Your task to perform on an android device: Clear the shopping cart on amazon. Add logitech g502 to the cart on amazon, then select checkout. Image 0: 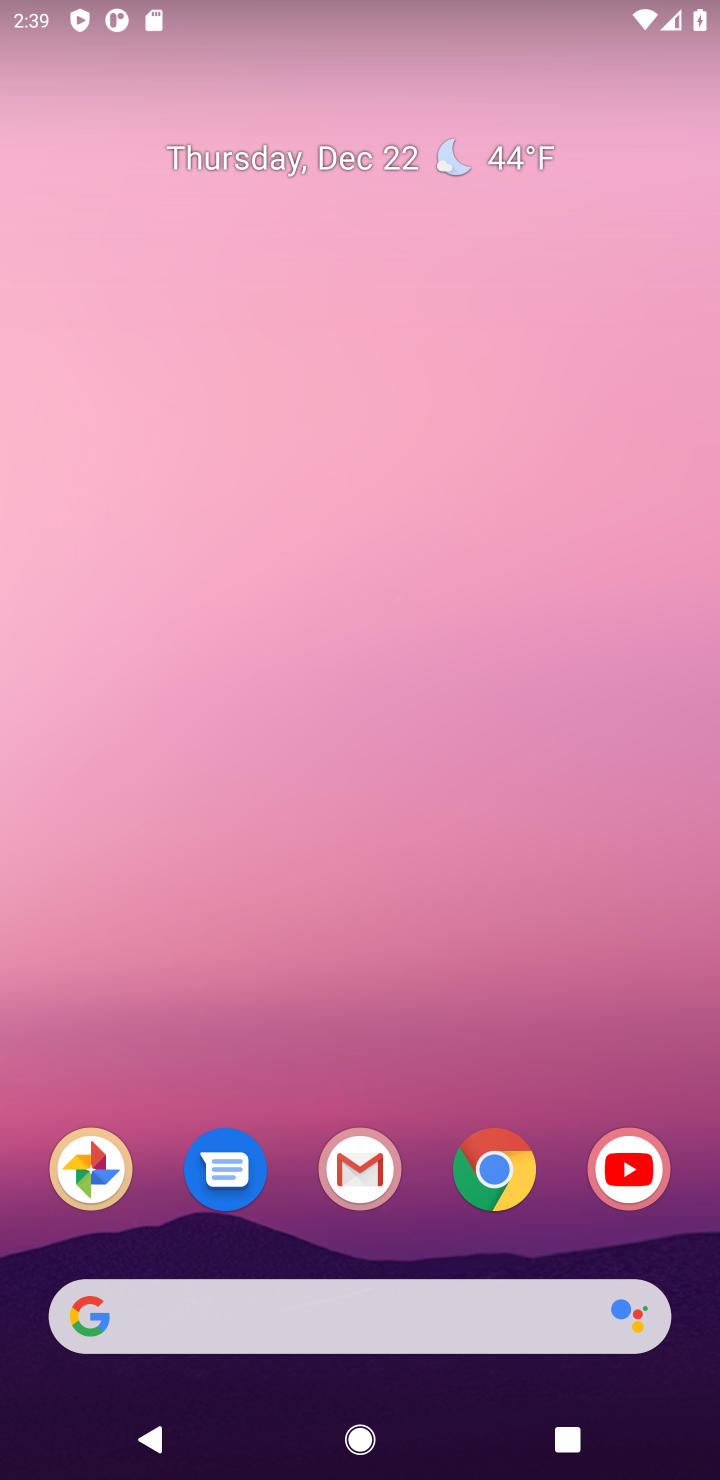
Step 0: click (502, 1166)
Your task to perform on an android device: Clear the shopping cart on amazon. Add logitech g502 to the cart on amazon, then select checkout. Image 1: 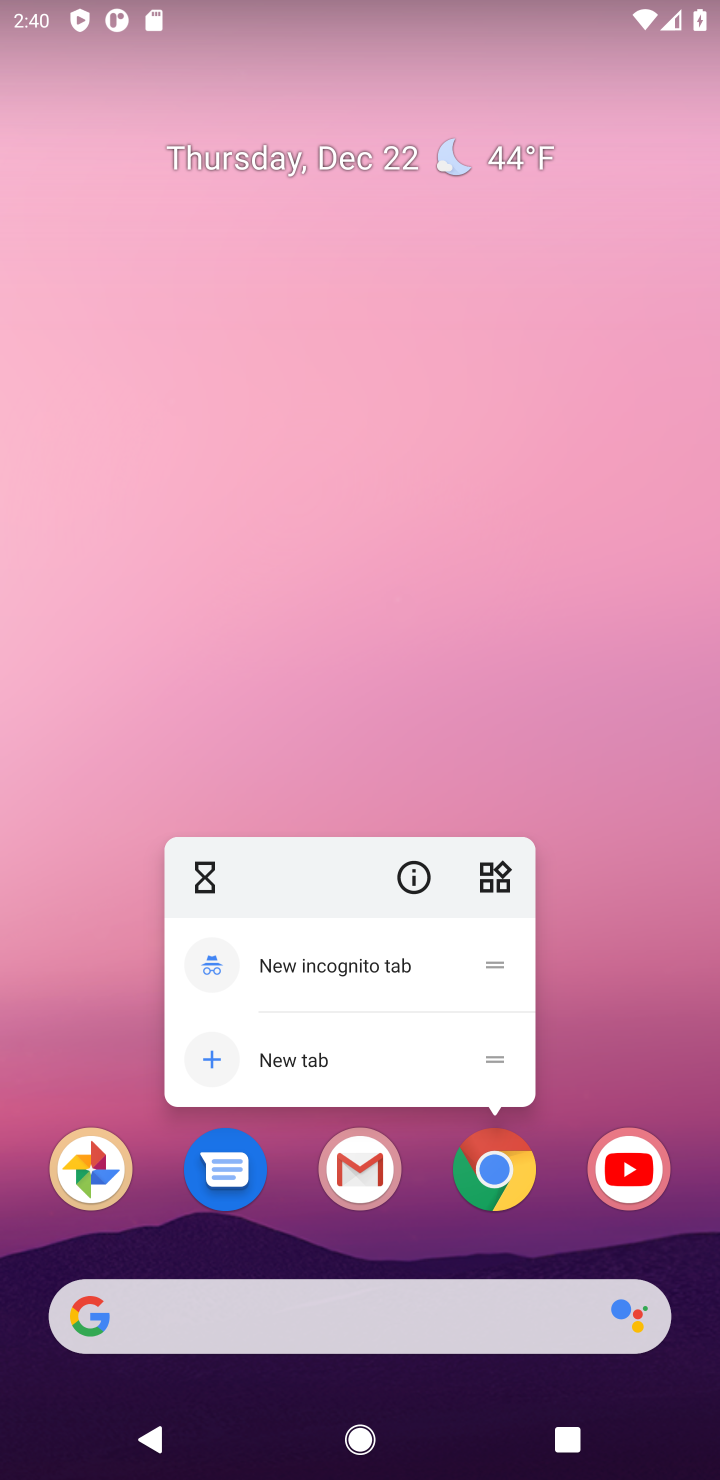
Step 1: click (502, 1166)
Your task to perform on an android device: Clear the shopping cart on amazon. Add logitech g502 to the cart on amazon, then select checkout. Image 2: 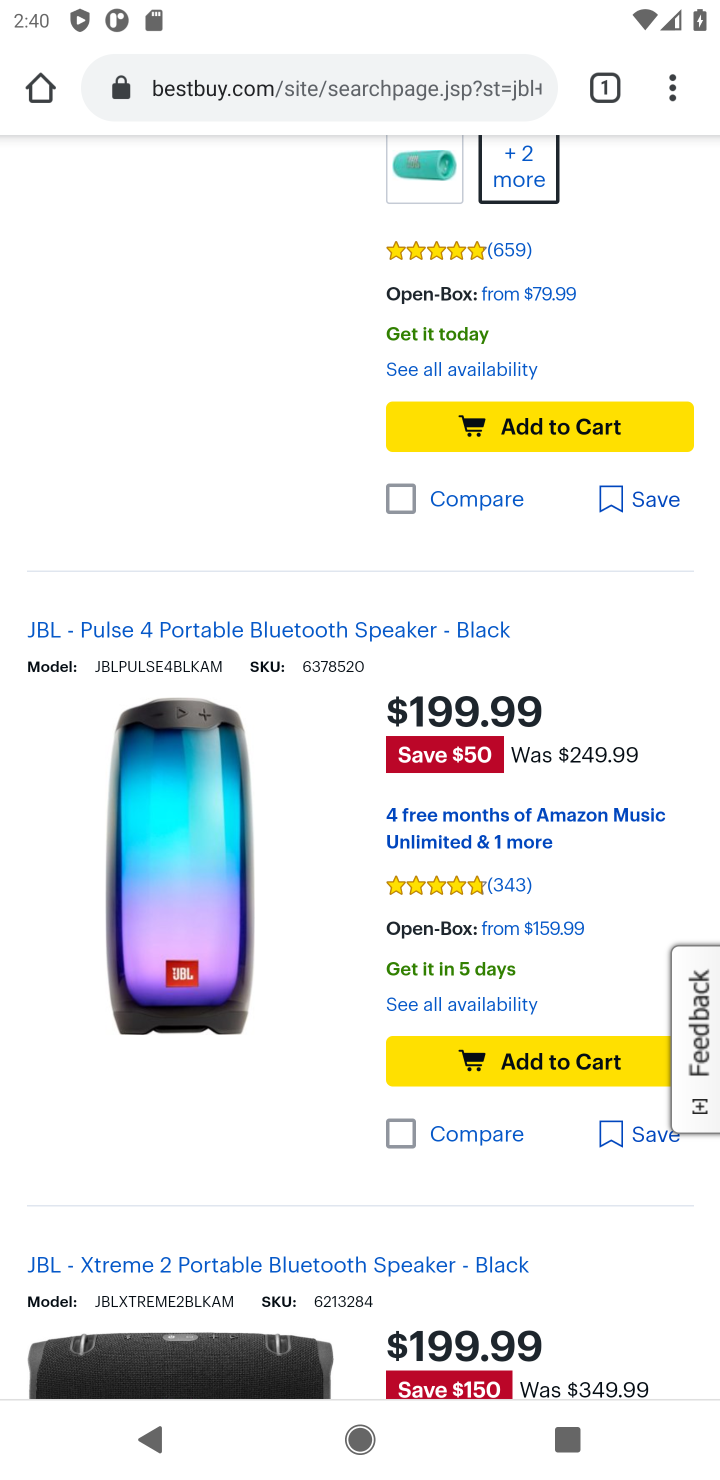
Step 2: click (278, 98)
Your task to perform on an android device: Clear the shopping cart on amazon. Add logitech g502 to the cart on amazon, then select checkout. Image 3: 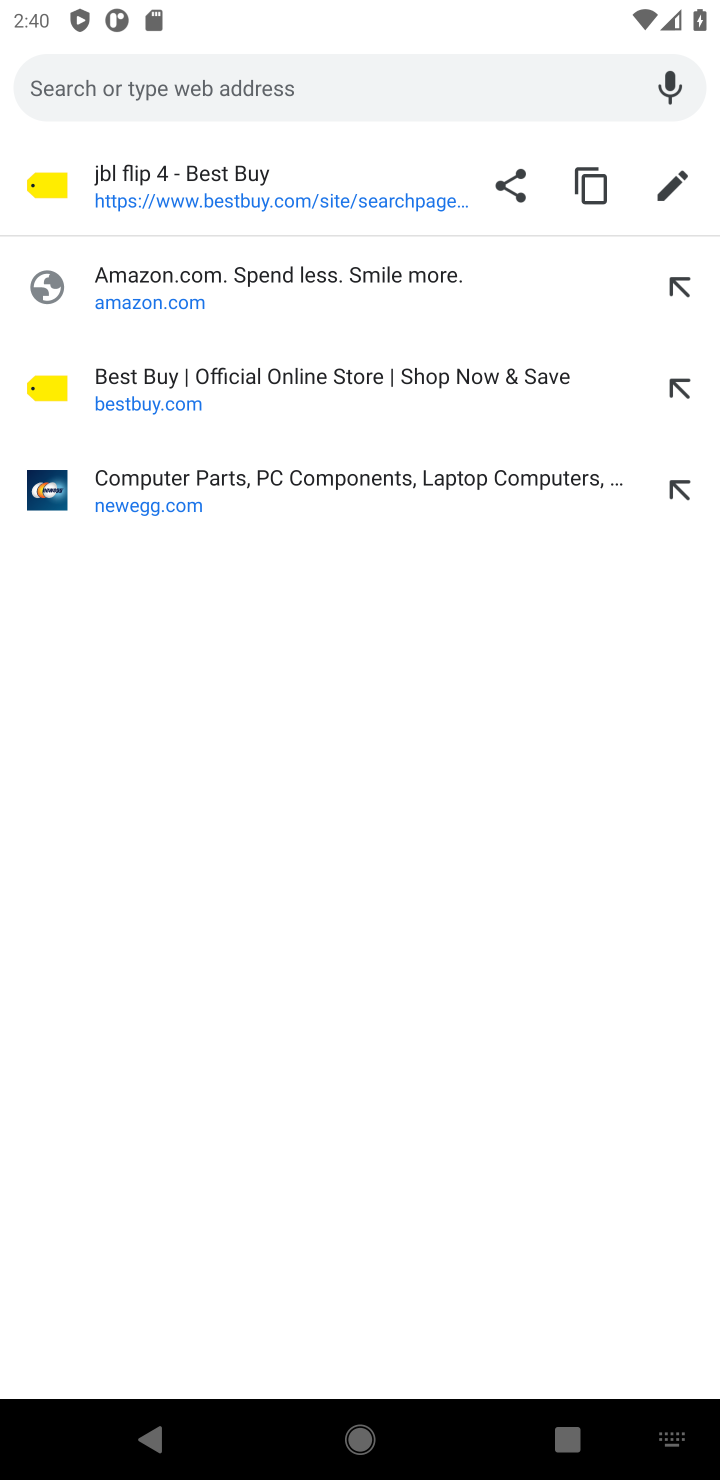
Step 3: click (131, 286)
Your task to perform on an android device: Clear the shopping cart on amazon. Add logitech g502 to the cart on amazon, then select checkout. Image 4: 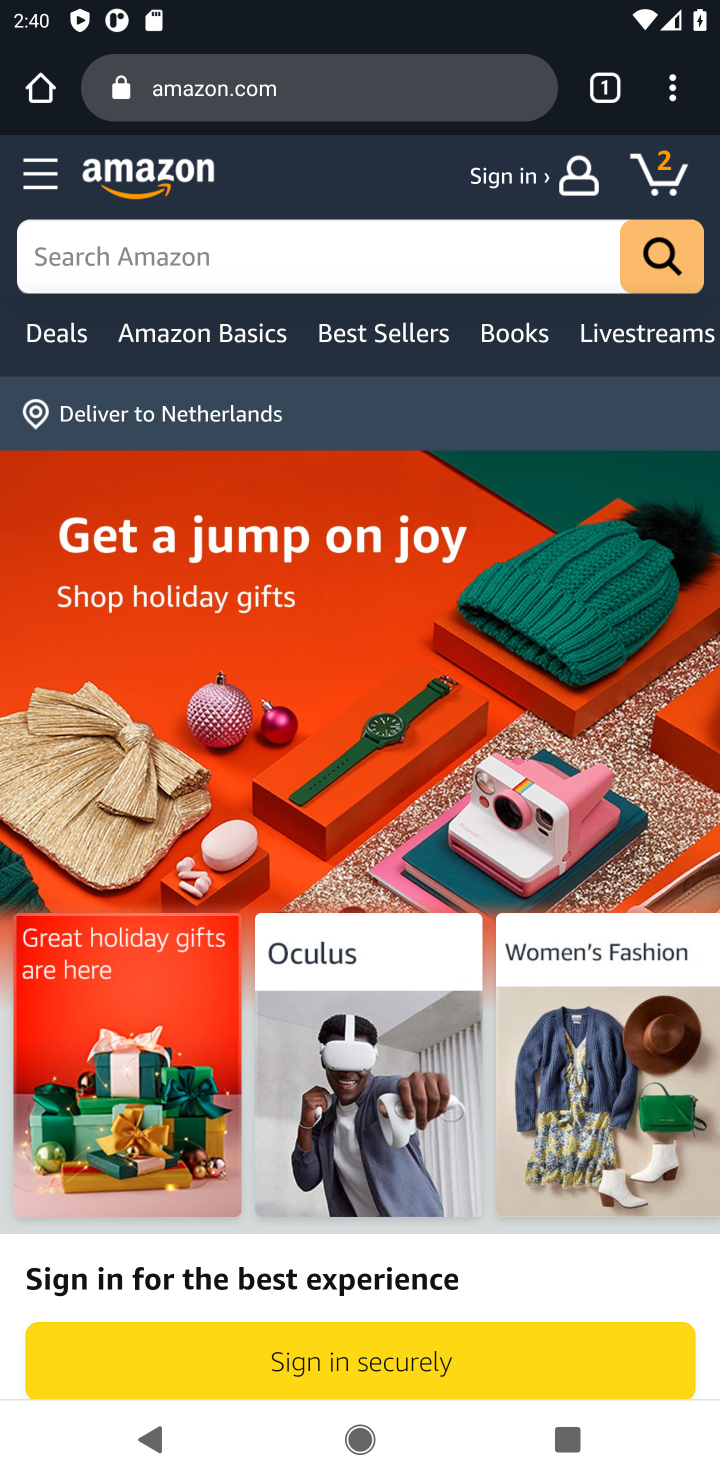
Step 4: click (656, 178)
Your task to perform on an android device: Clear the shopping cart on amazon. Add logitech g502 to the cart on amazon, then select checkout. Image 5: 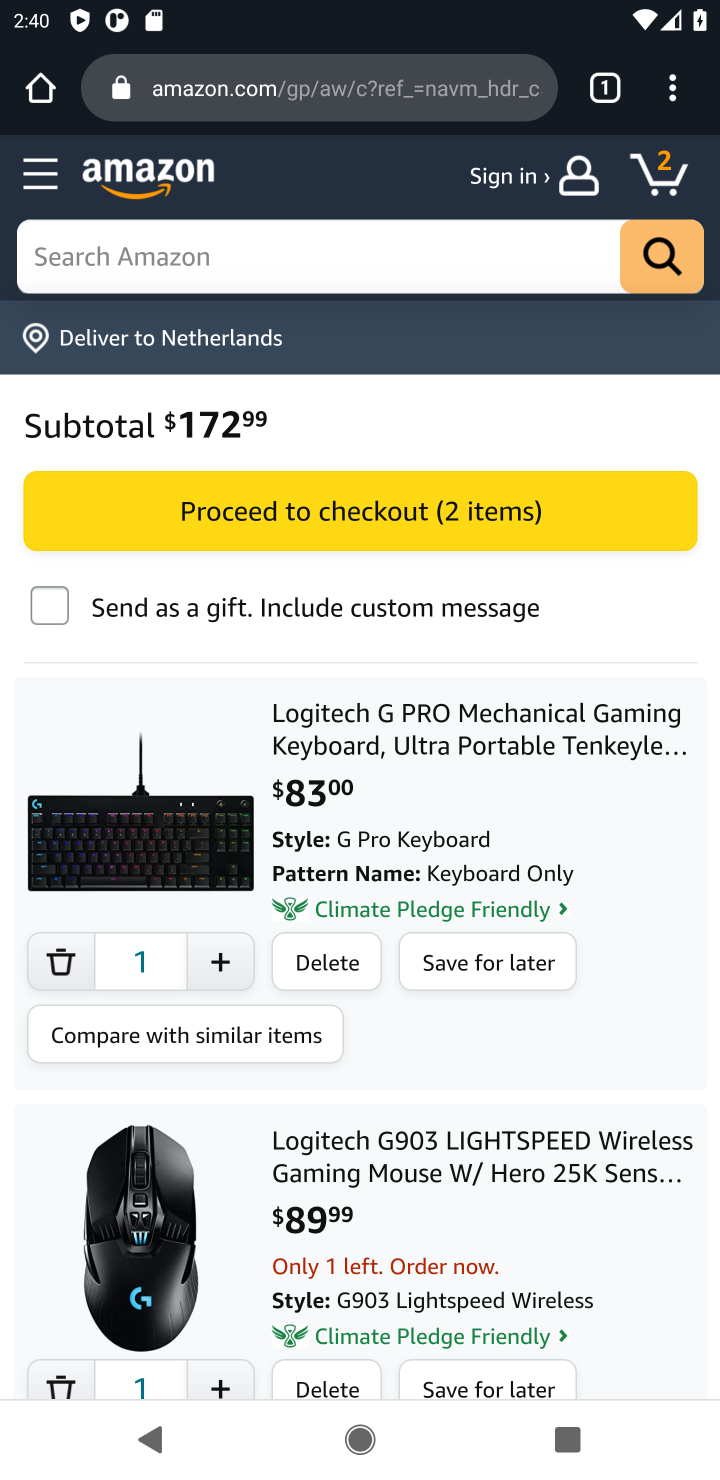
Step 5: click (303, 954)
Your task to perform on an android device: Clear the shopping cart on amazon. Add logitech g502 to the cart on amazon, then select checkout. Image 6: 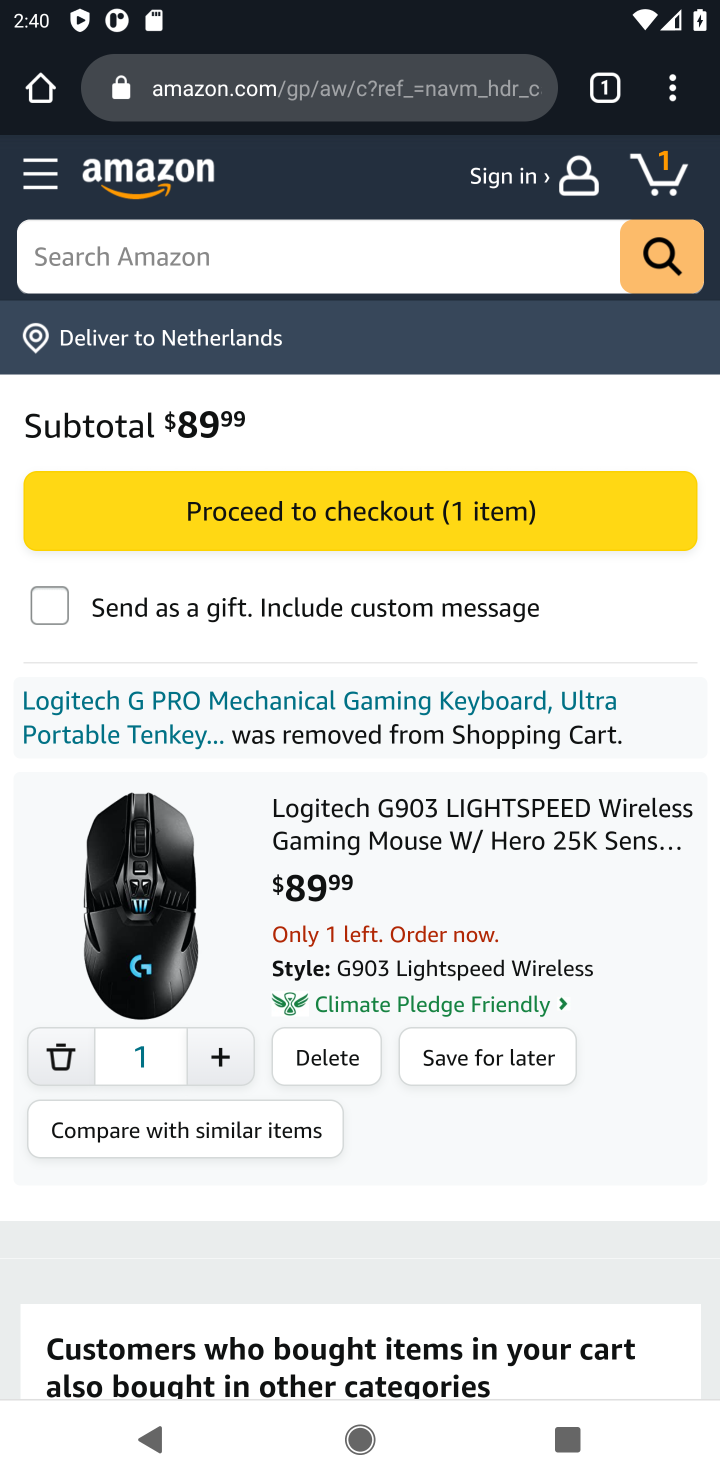
Step 6: click (326, 1072)
Your task to perform on an android device: Clear the shopping cart on amazon. Add logitech g502 to the cart on amazon, then select checkout. Image 7: 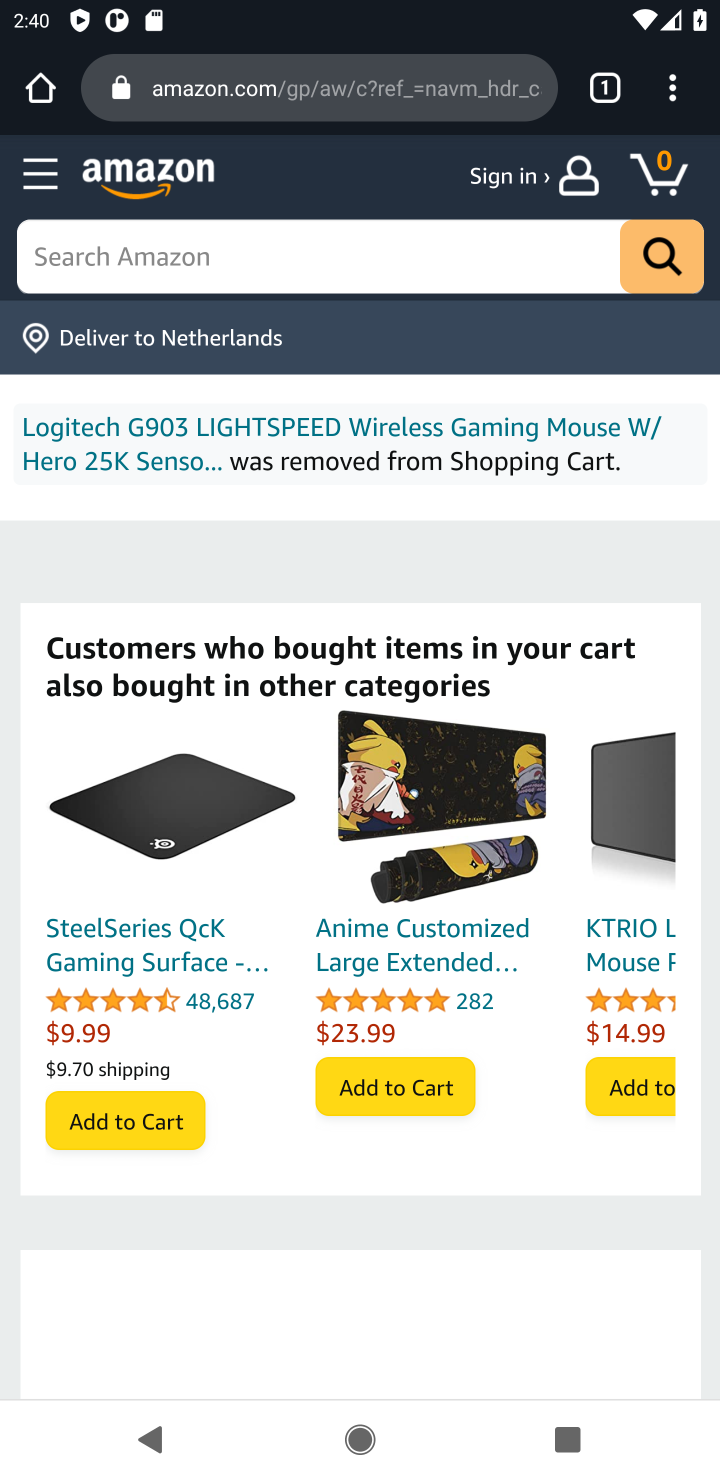
Step 7: click (93, 271)
Your task to perform on an android device: Clear the shopping cart on amazon. Add logitech g502 to the cart on amazon, then select checkout. Image 8: 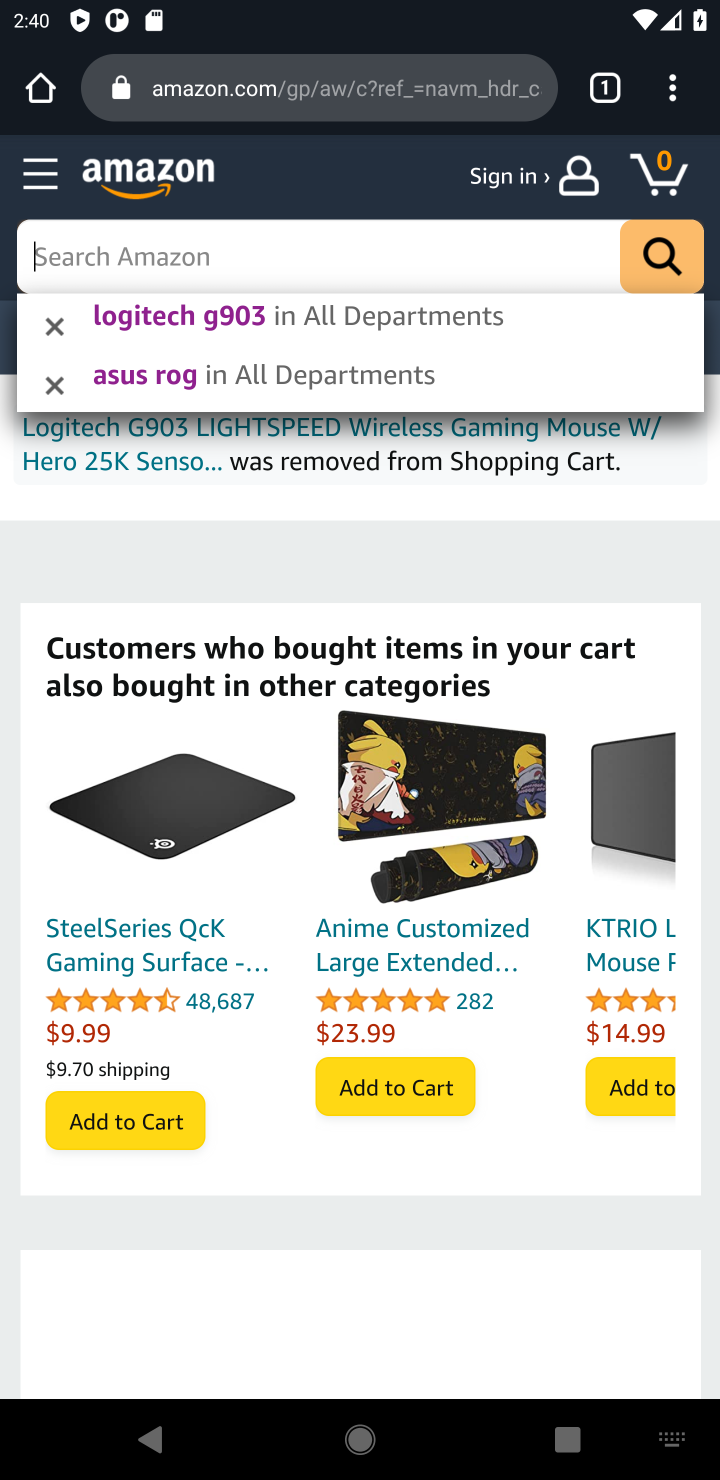
Step 8: type " logitech g502 "
Your task to perform on an android device: Clear the shopping cart on amazon. Add logitech g502 to the cart on amazon, then select checkout. Image 9: 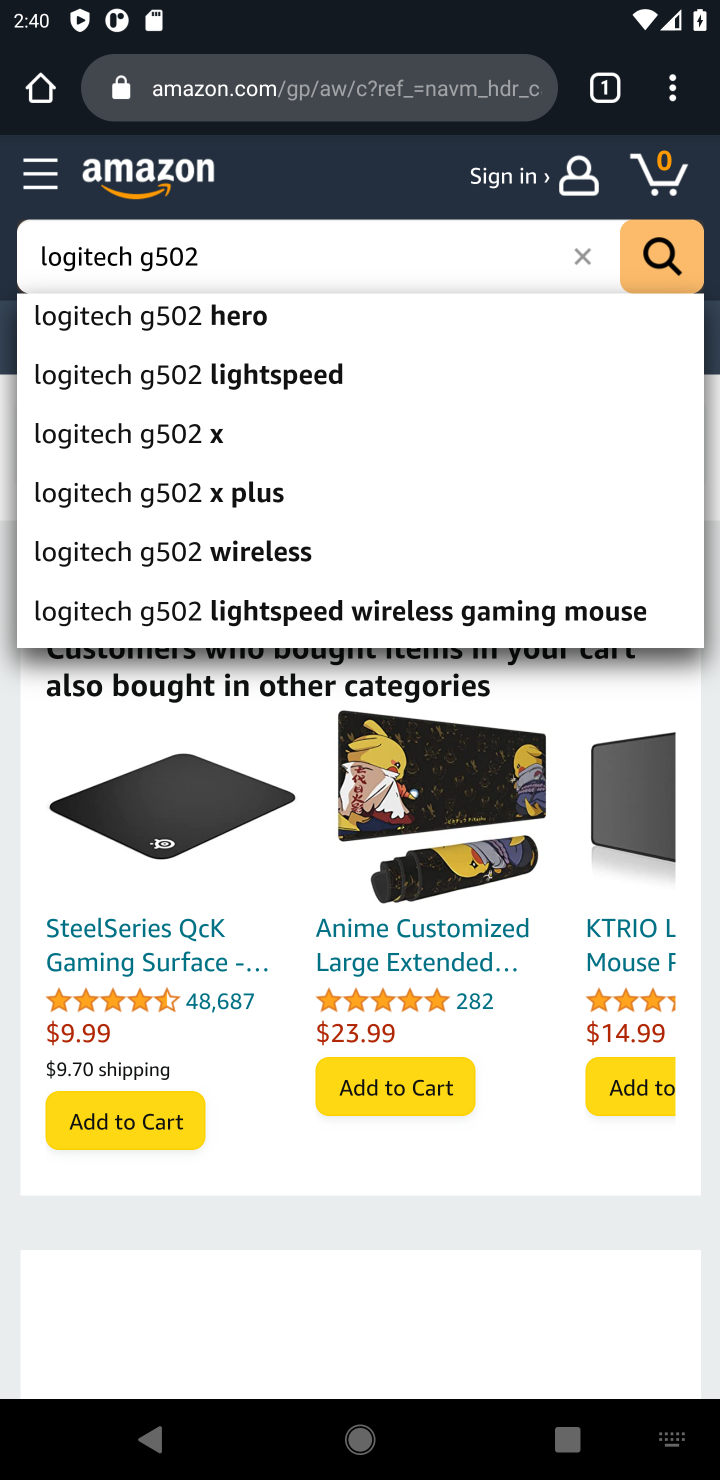
Step 9: click (655, 256)
Your task to perform on an android device: Clear the shopping cart on amazon. Add logitech g502 to the cart on amazon, then select checkout. Image 10: 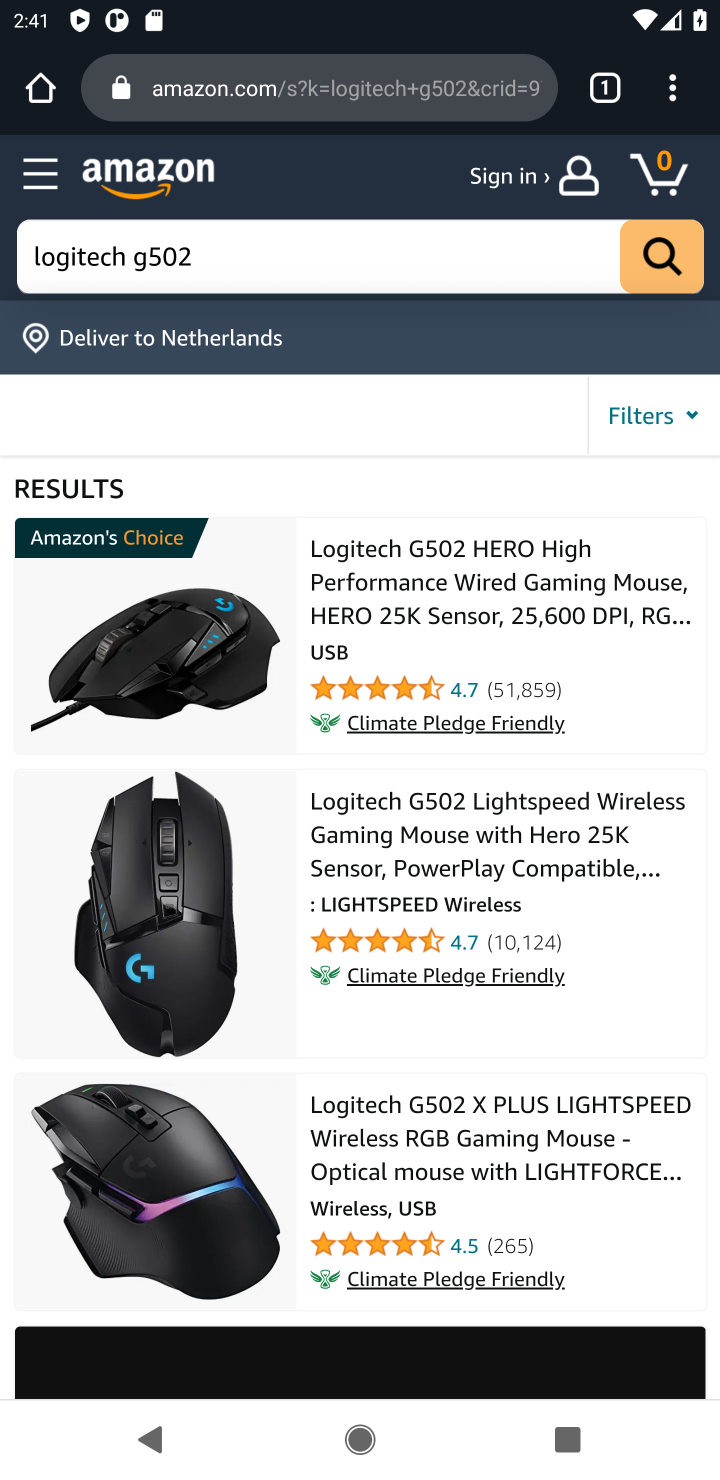
Step 10: drag from (352, 909) to (369, 371)
Your task to perform on an android device: Clear the shopping cart on amazon. Add logitech g502 to the cart on amazon, then select checkout. Image 11: 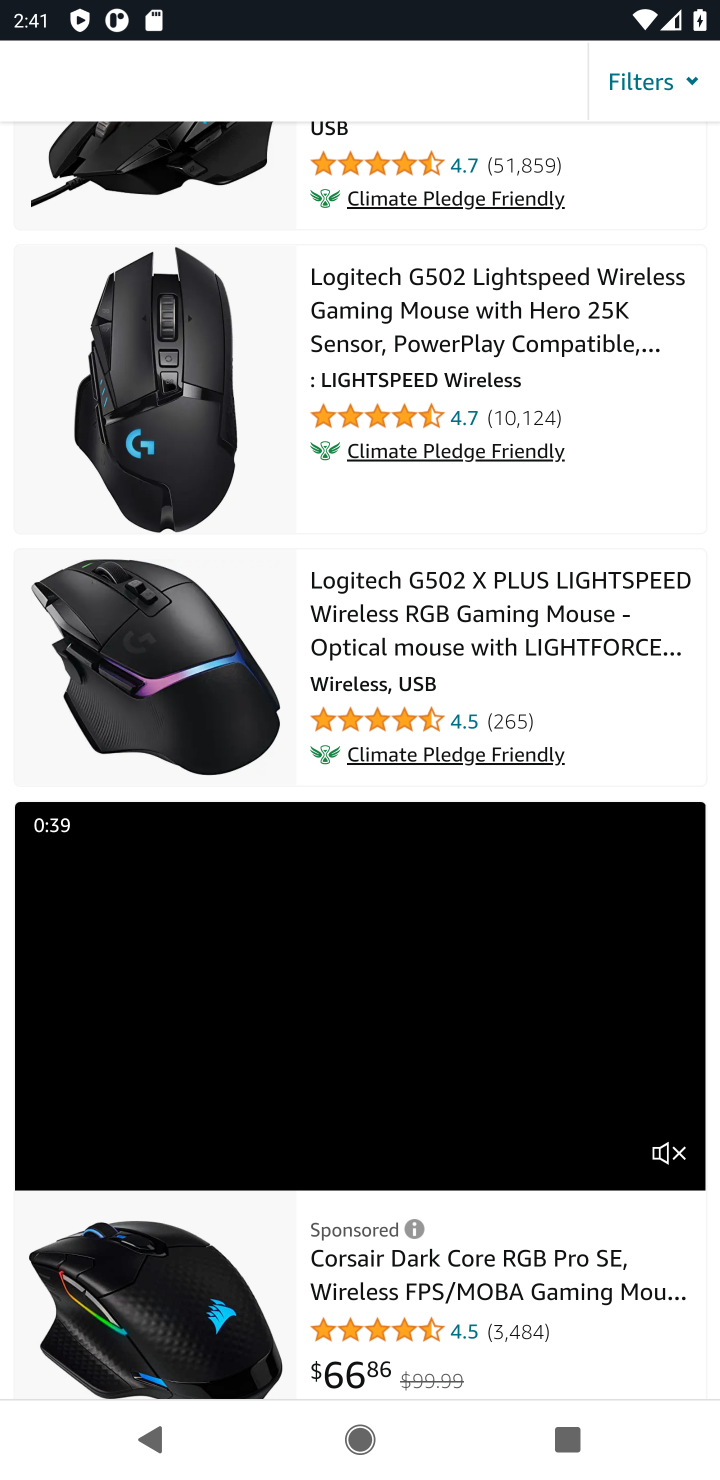
Step 11: drag from (289, 380) to (267, 720)
Your task to perform on an android device: Clear the shopping cart on amazon. Add logitech g502 to the cart on amazon, then select checkout. Image 12: 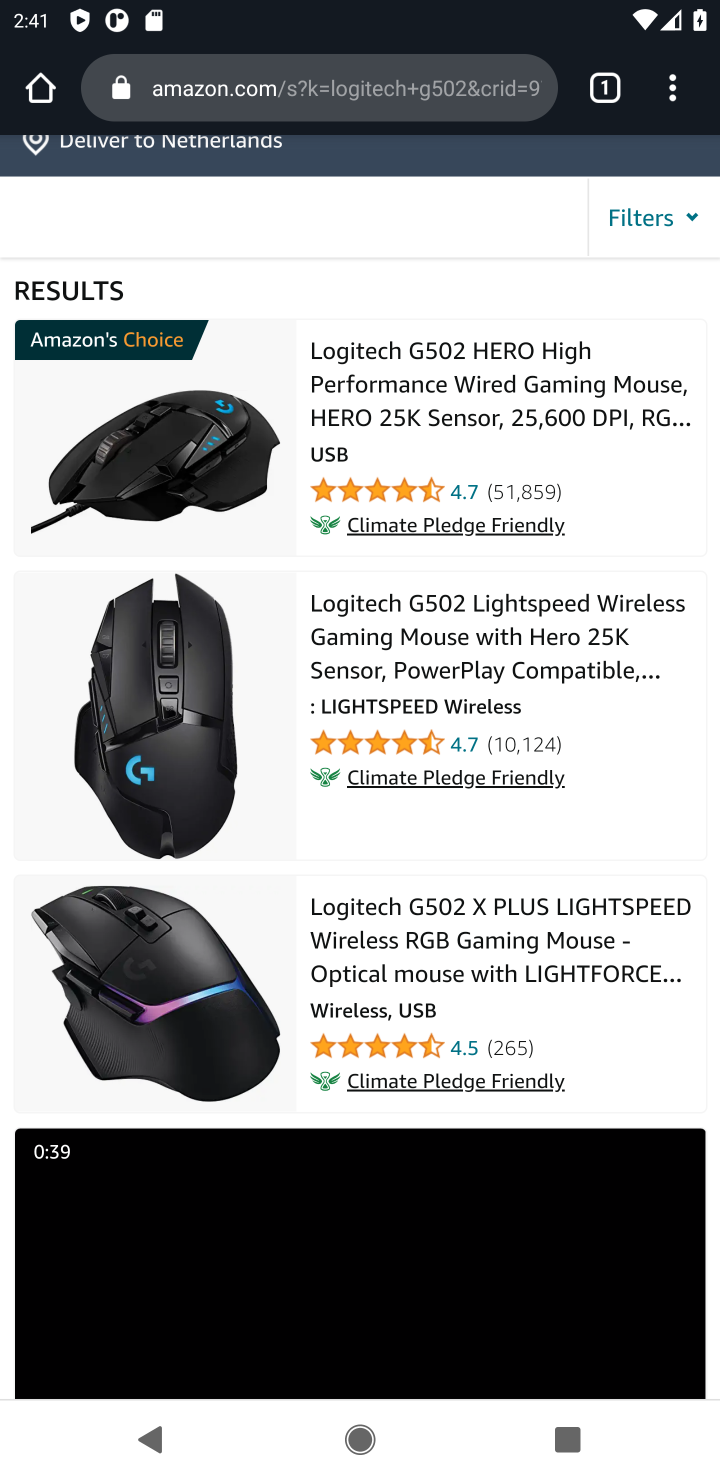
Step 12: click (421, 400)
Your task to perform on an android device: Clear the shopping cart on amazon. Add logitech g502 to the cart on amazon, then select checkout. Image 13: 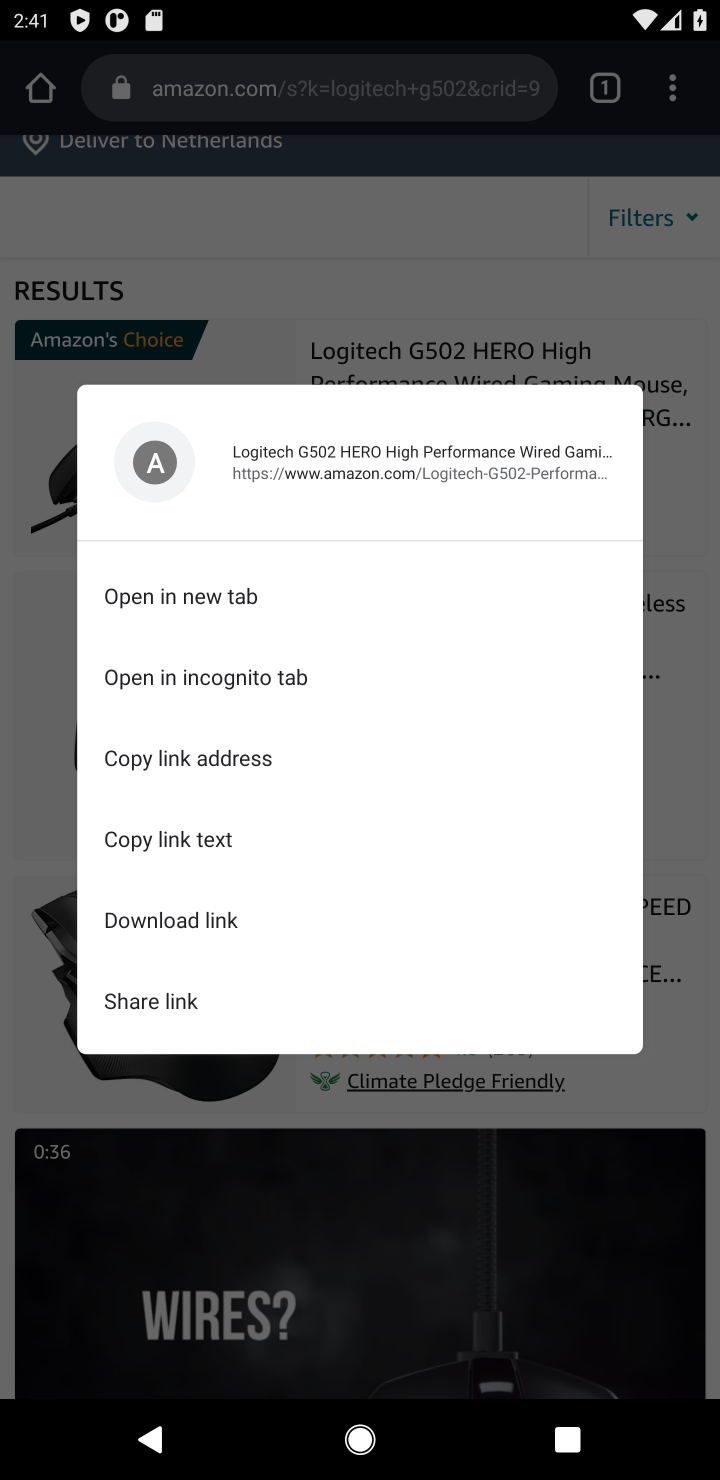
Step 13: click (423, 376)
Your task to perform on an android device: Clear the shopping cart on amazon. Add logitech g502 to the cart on amazon, then select checkout. Image 14: 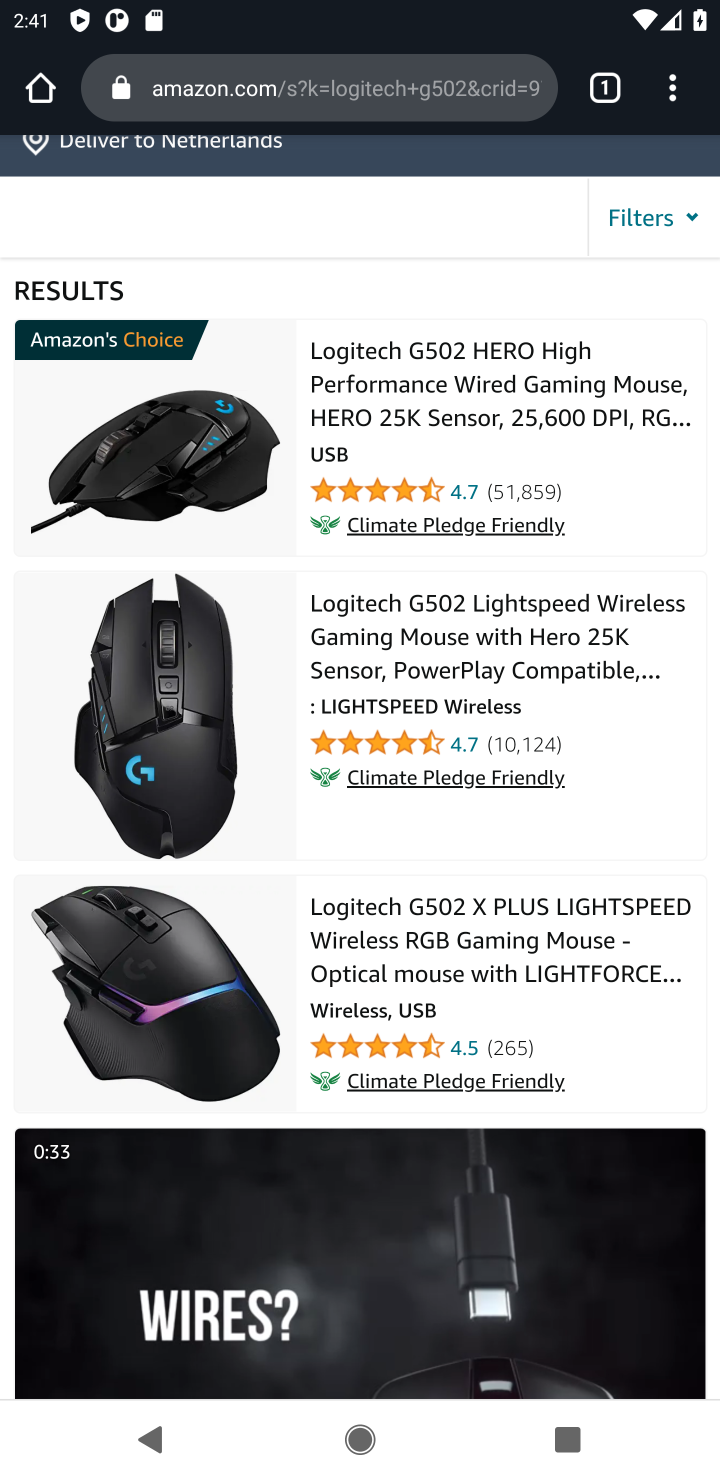
Step 14: click (423, 403)
Your task to perform on an android device: Clear the shopping cart on amazon. Add logitech g502 to the cart on amazon, then select checkout. Image 15: 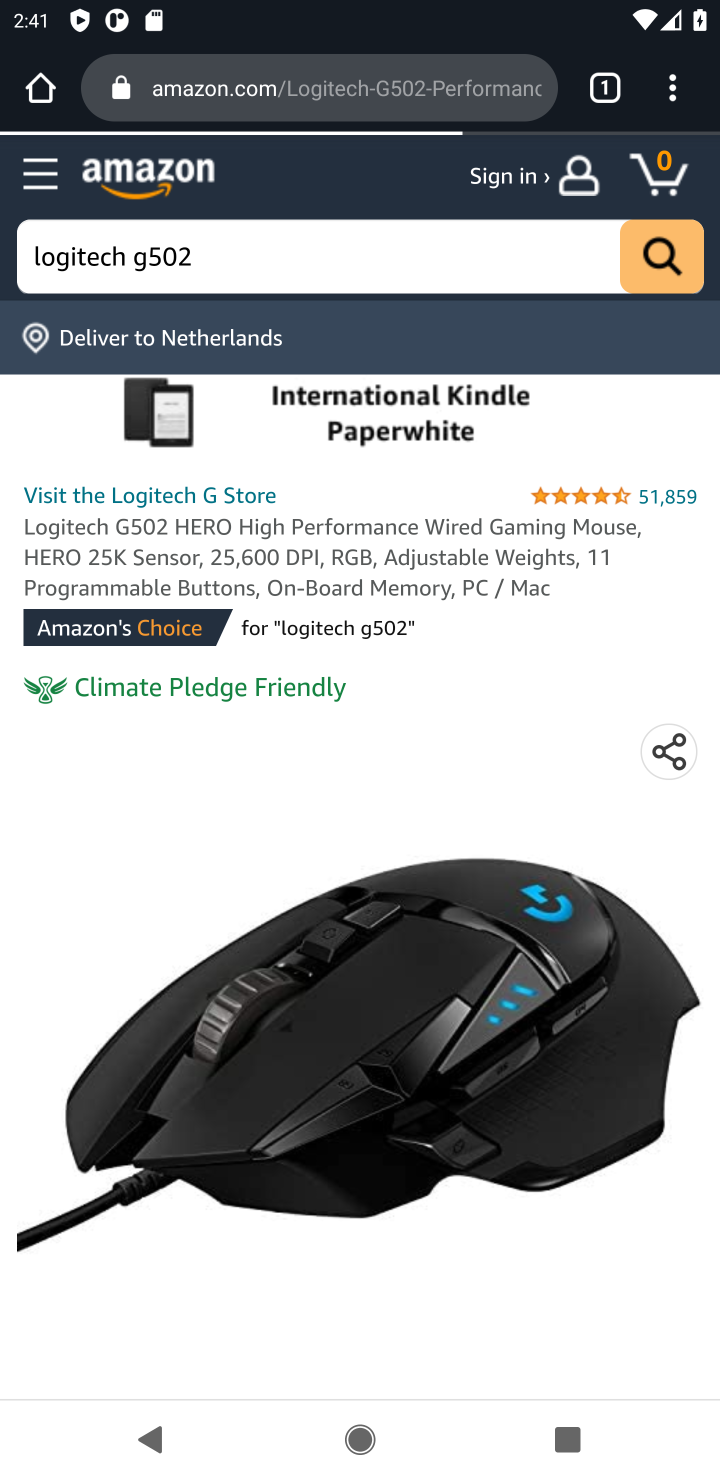
Step 15: drag from (285, 907) to (337, 377)
Your task to perform on an android device: Clear the shopping cart on amazon. Add logitech g502 to the cart on amazon, then select checkout. Image 16: 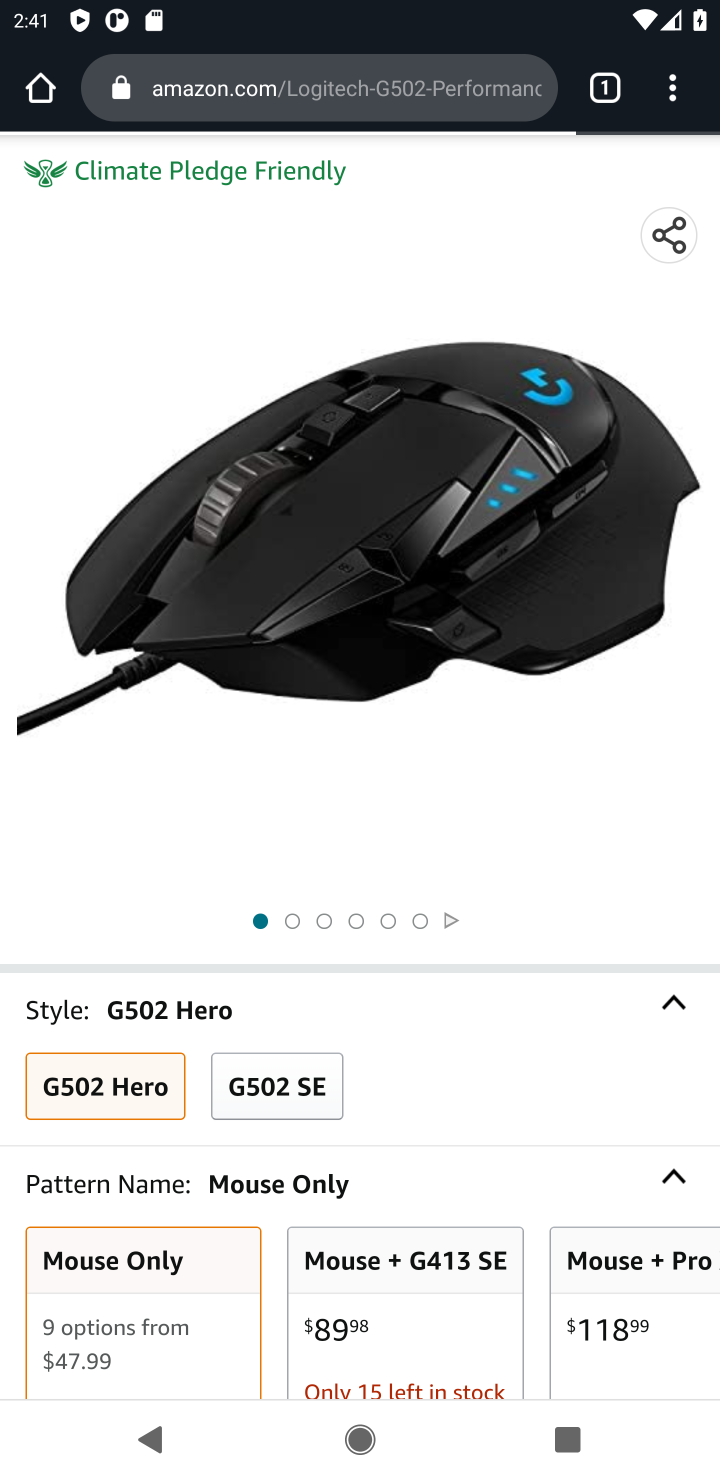
Step 16: drag from (364, 1131) to (334, 532)
Your task to perform on an android device: Clear the shopping cart on amazon. Add logitech g502 to the cart on amazon, then select checkout. Image 17: 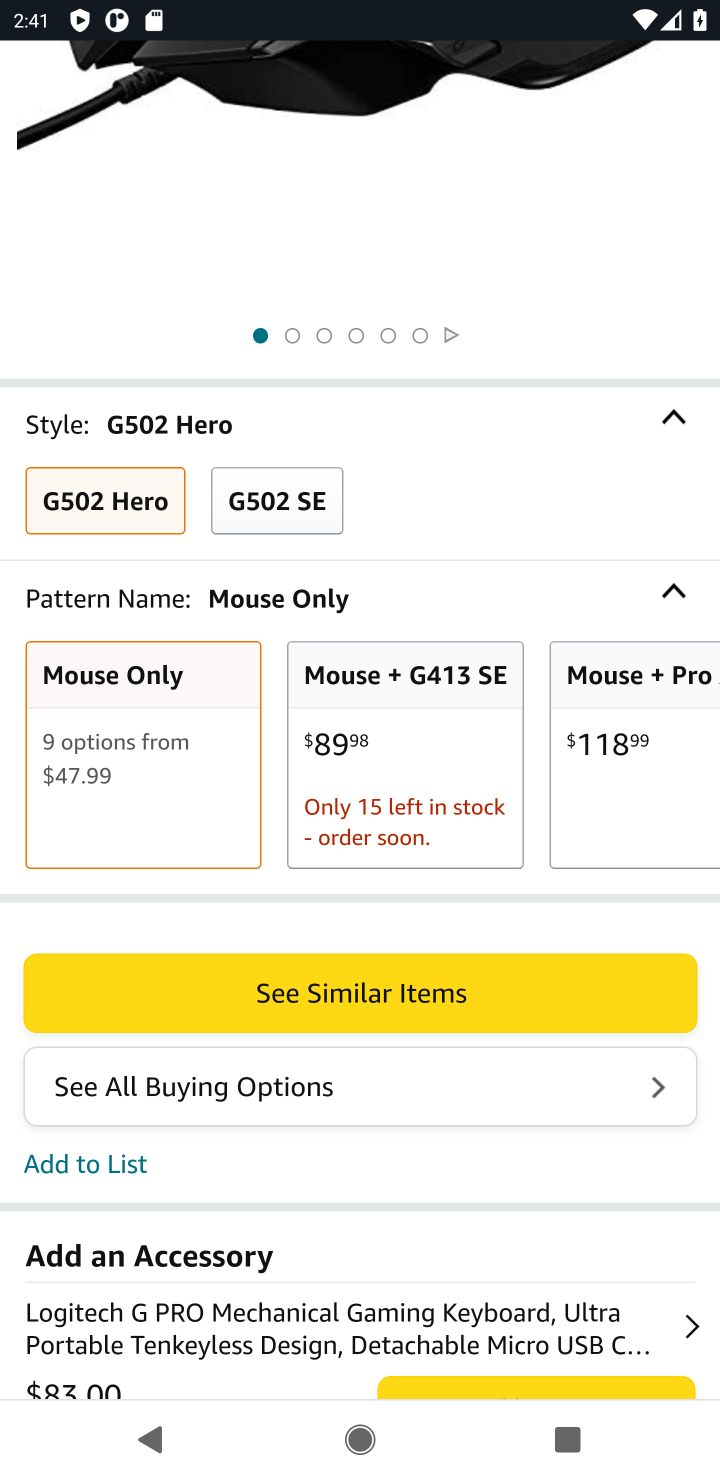
Step 17: drag from (334, 530) to (352, 1008)
Your task to perform on an android device: Clear the shopping cart on amazon. Add logitech g502 to the cart on amazon, then select checkout. Image 18: 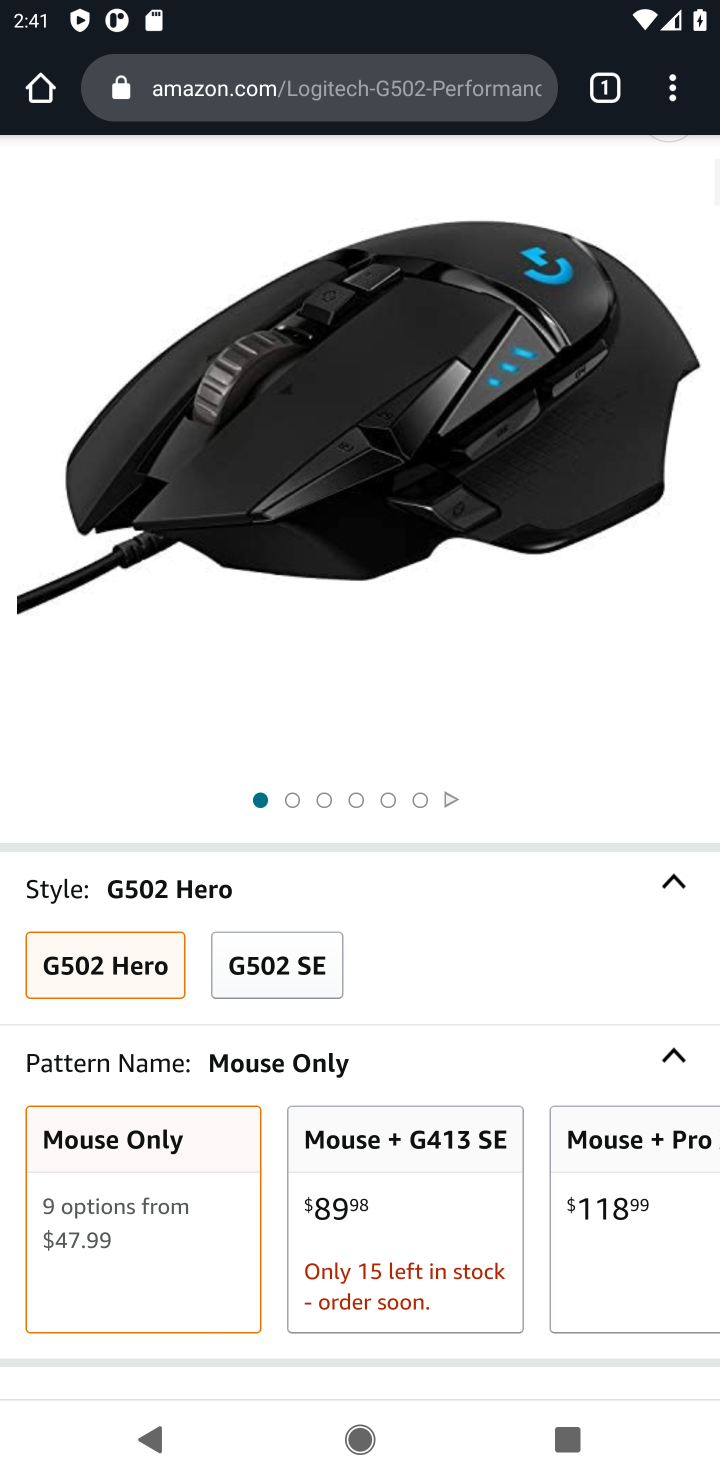
Step 18: press back button
Your task to perform on an android device: Clear the shopping cart on amazon. Add logitech g502 to the cart on amazon, then select checkout. Image 19: 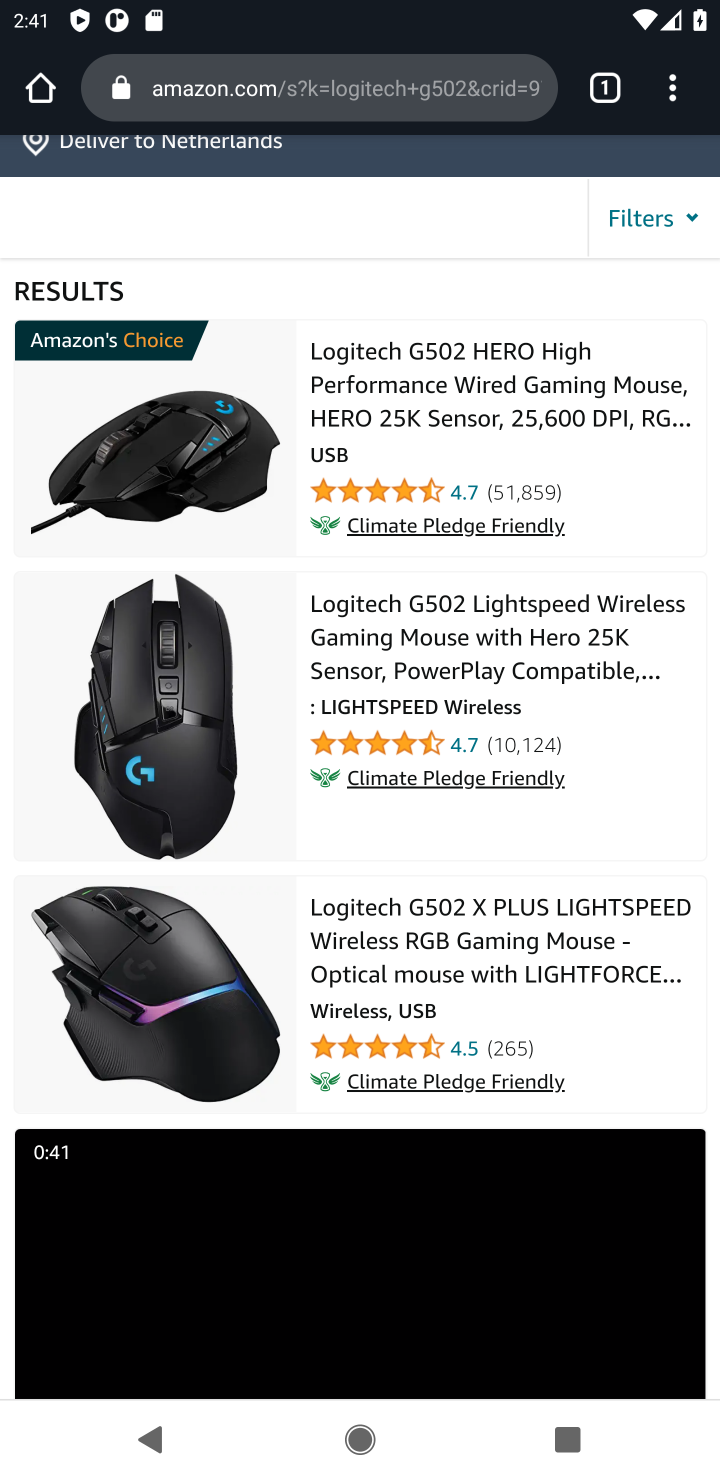
Step 19: drag from (359, 866) to (357, 423)
Your task to perform on an android device: Clear the shopping cart on amazon. Add logitech g502 to the cart on amazon, then select checkout. Image 20: 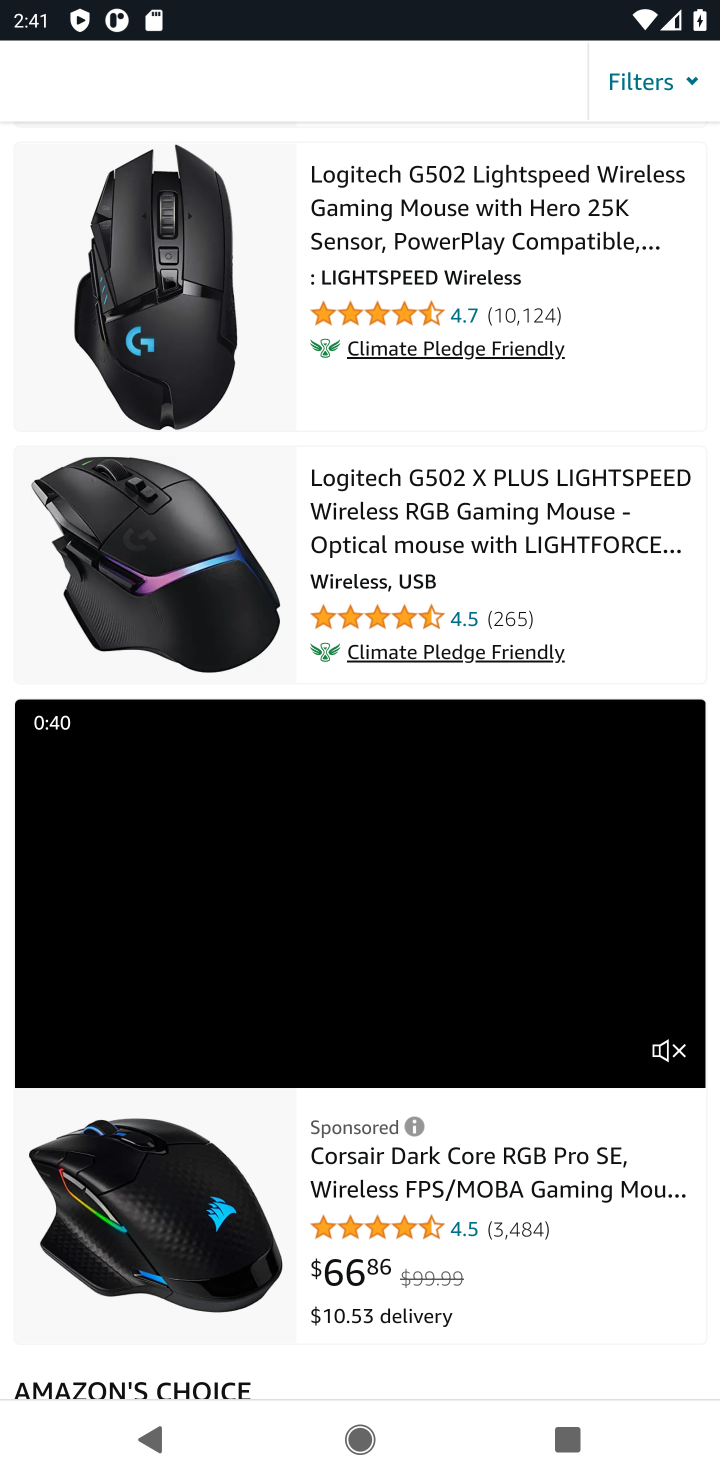
Step 20: drag from (416, 1059) to (405, 544)
Your task to perform on an android device: Clear the shopping cart on amazon. Add logitech g502 to the cart on amazon, then select checkout. Image 21: 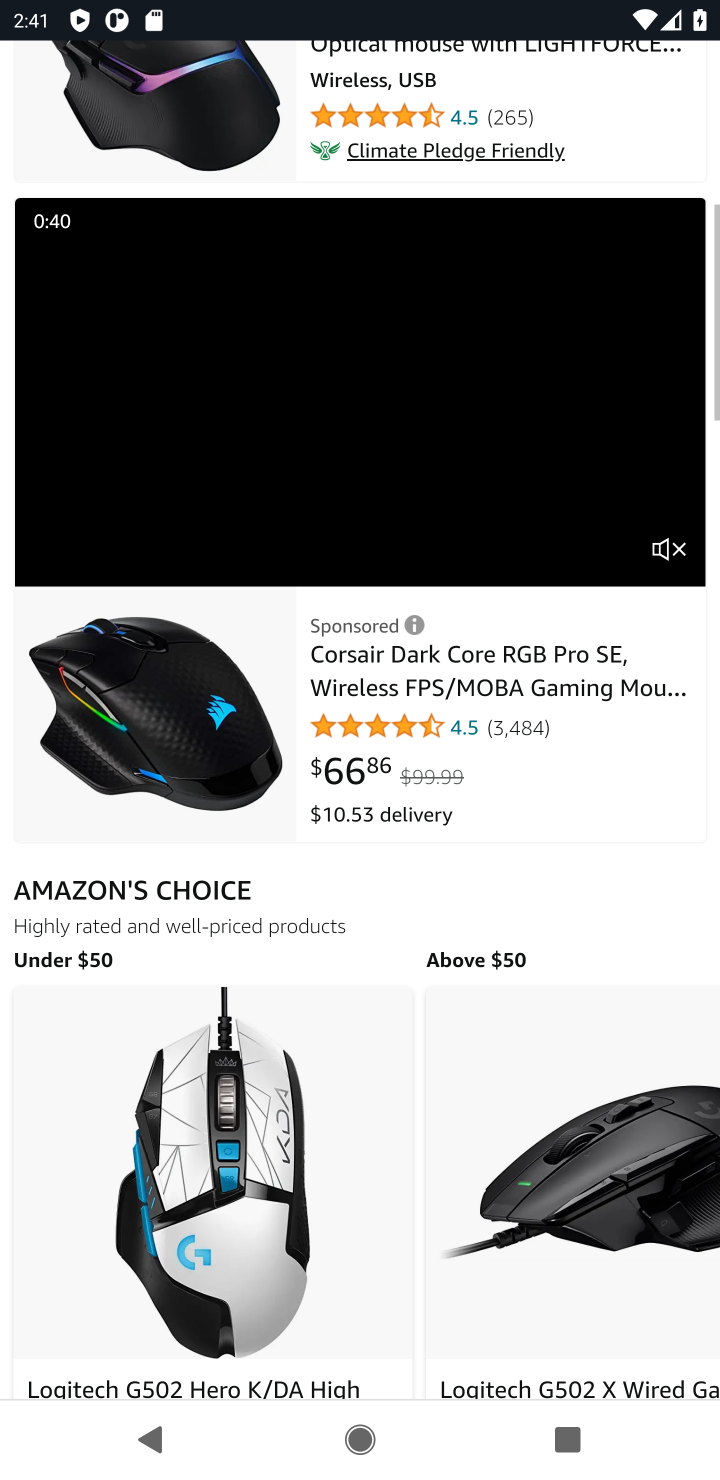
Step 21: drag from (353, 1105) to (355, 494)
Your task to perform on an android device: Clear the shopping cart on amazon. Add logitech g502 to the cart on amazon, then select checkout. Image 22: 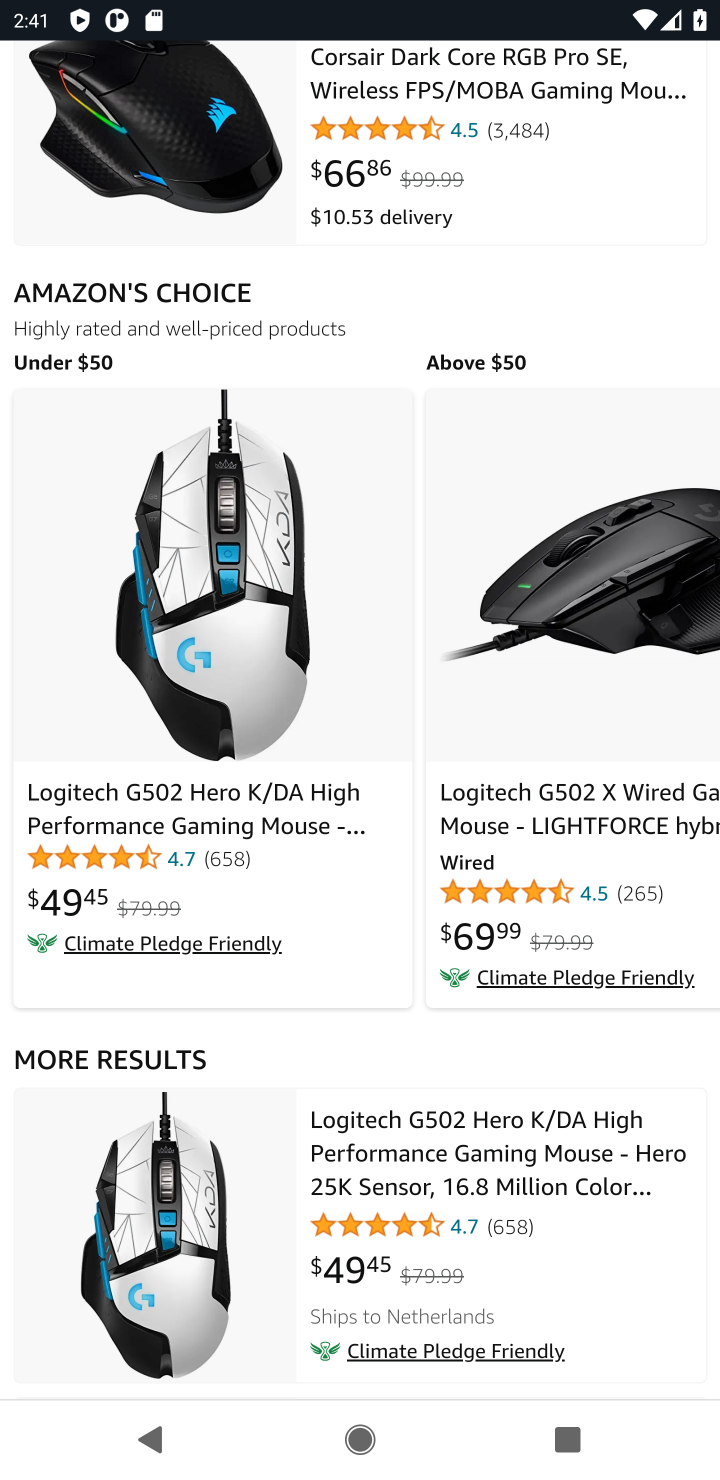
Step 22: drag from (351, 1066) to (367, 652)
Your task to perform on an android device: Clear the shopping cart on amazon. Add logitech g502 to the cart on amazon, then select checkout. Image 23: 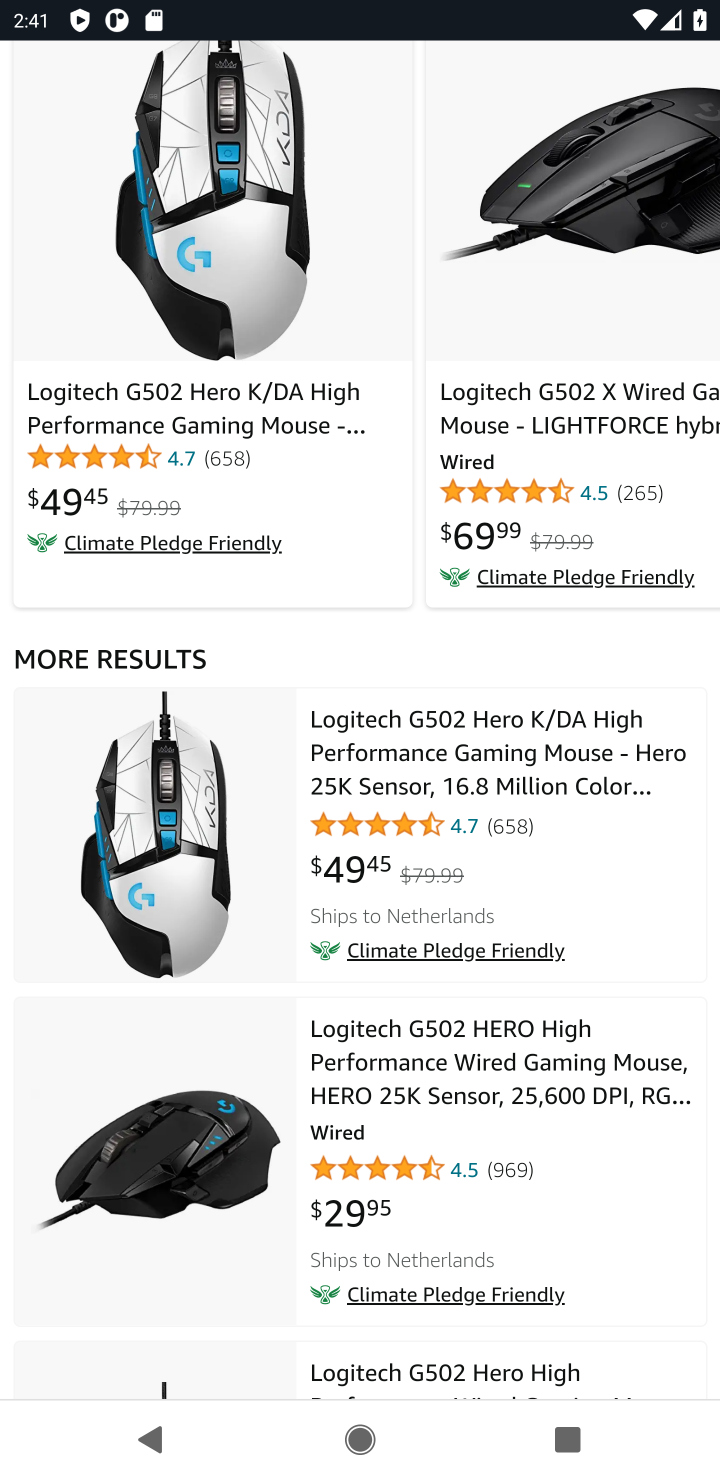
Step 23: click (398, 780)
Your task to perform on an android device: Clear the shopping cart on amazon. Add logitech g502 to the cart on amazon, then select checkout. Image 24: 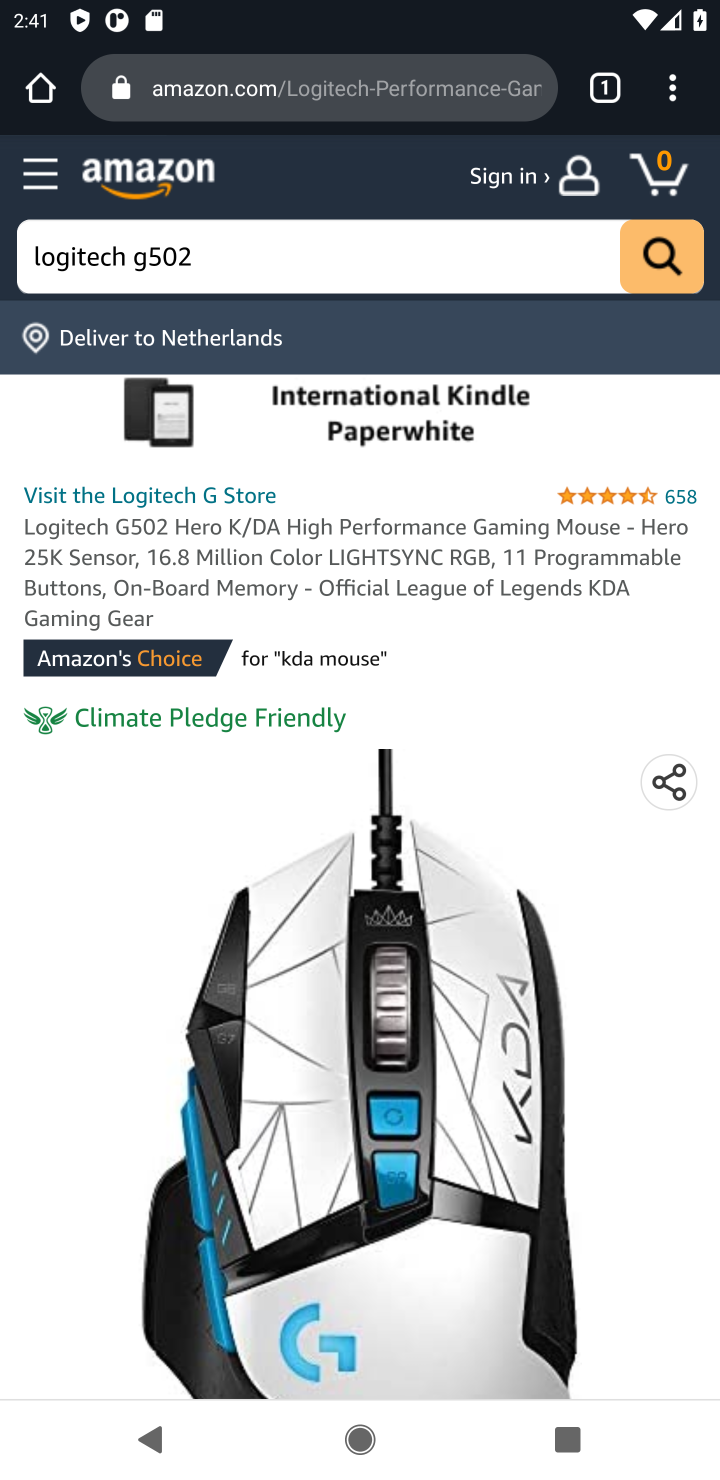
Step 24: drag from (309, 1049) to (350, 449)
Your task to perform on an android device: Clear the shopping cart on amazon. Add logitech g502 to the cart on amazon, then select checkout. Image 25: 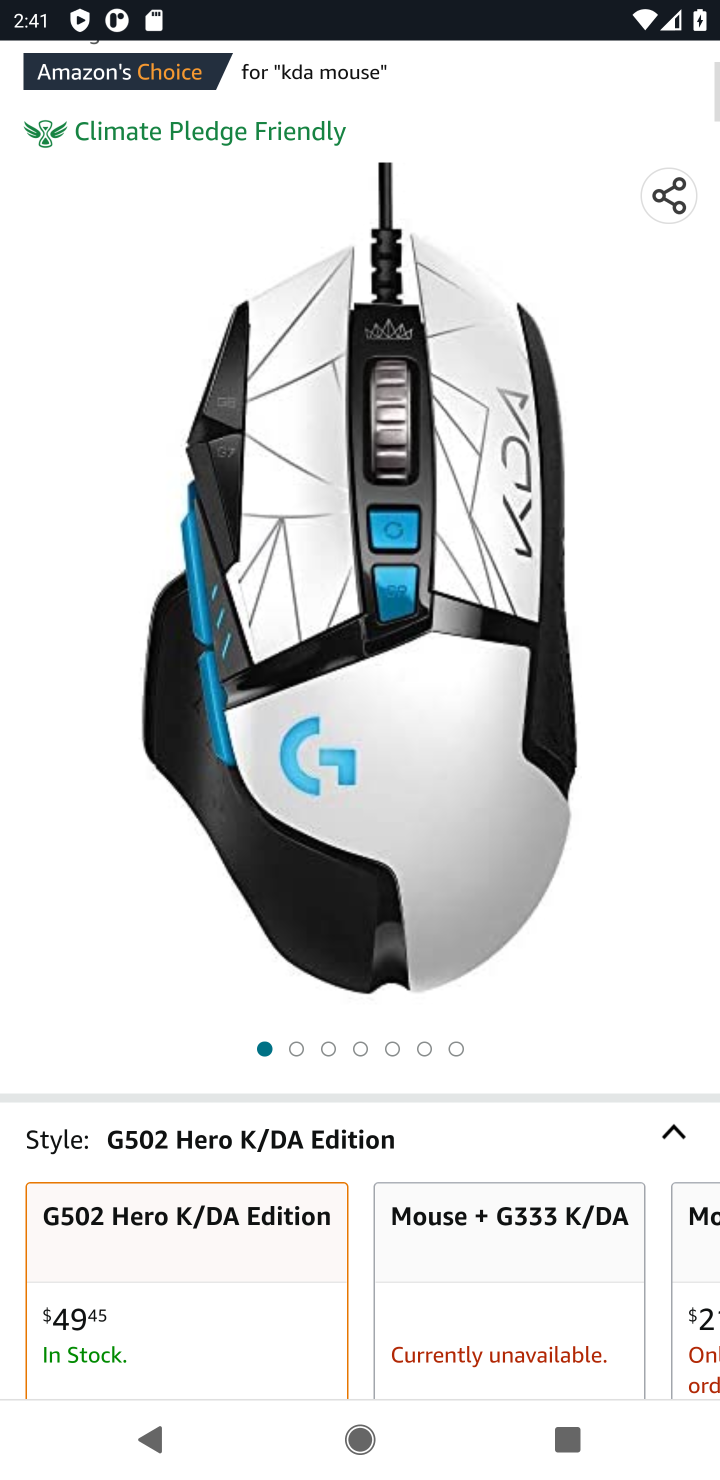
Step 25: drag from (357, 1090) to (372, 403)
Your task to perform on an android device: Clear the shopping cart on amazon. Add logitech g502 to the cart on amazon, then select checkout. Image 26: 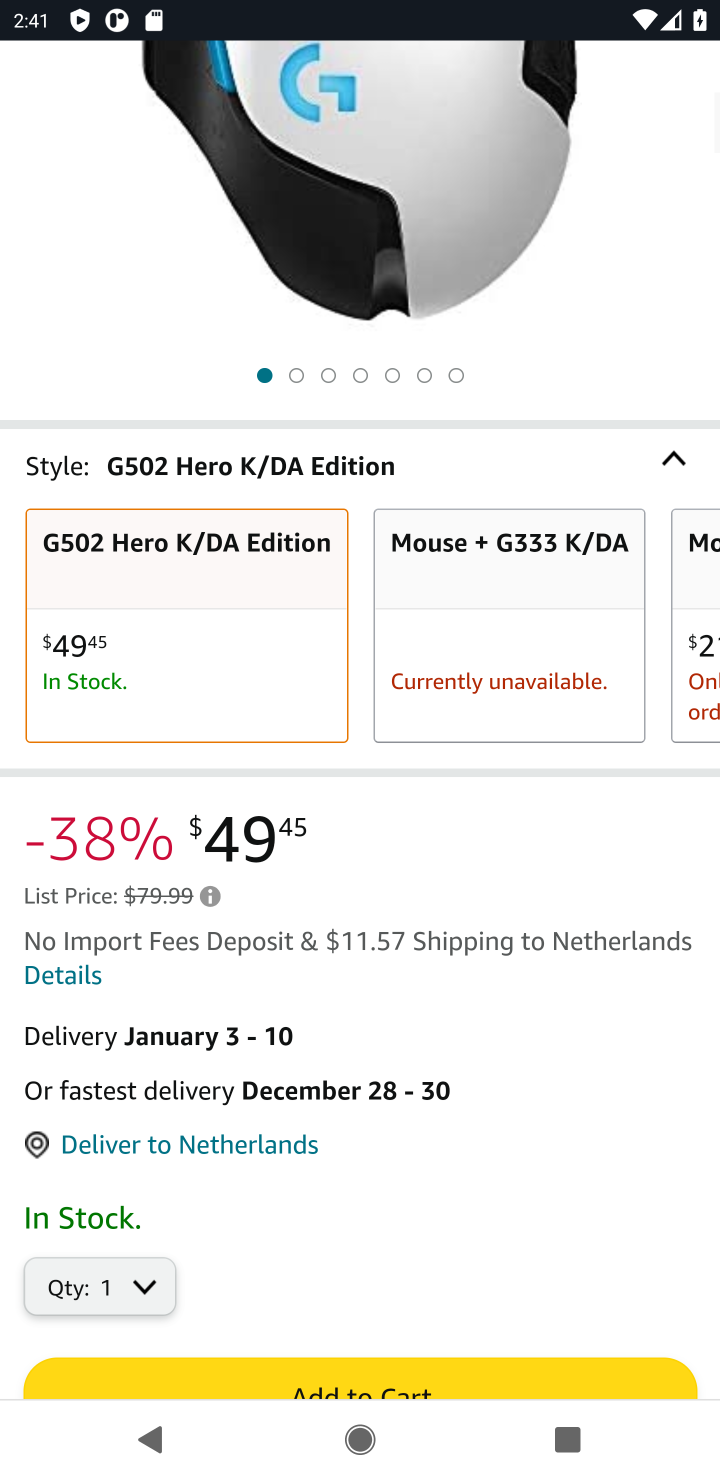
Step 26: drag from (386, 1091) to (371, 559)
Your task to perform on an android device: Clear the shopping cart on amazon. Add logitech g502 to the cart on amazon, then select checkout. Image 27: 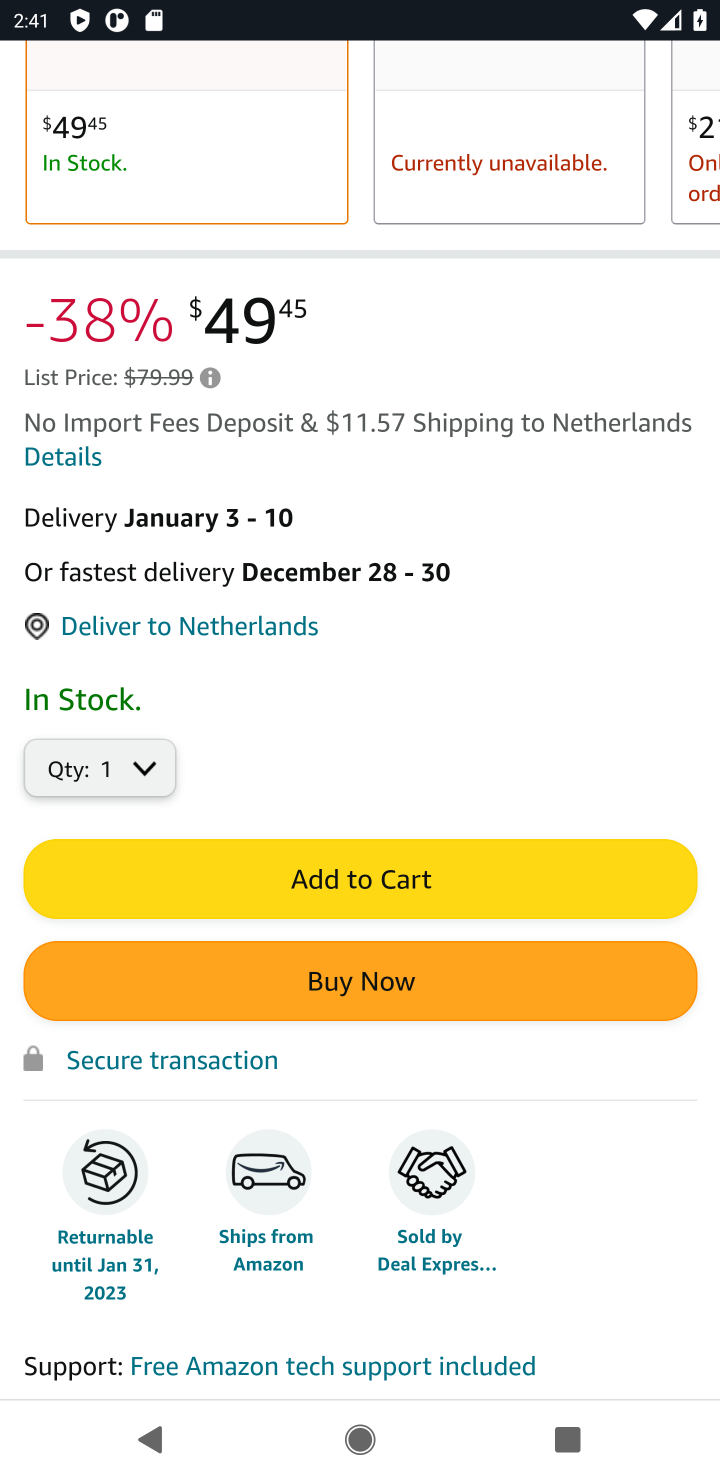
Step 27: click (318, 878)
Your task to perform on an android device: Clear the shopping cart on amazon. Add logitech g502 to the cart on amazon, then select checkout. Image 28: 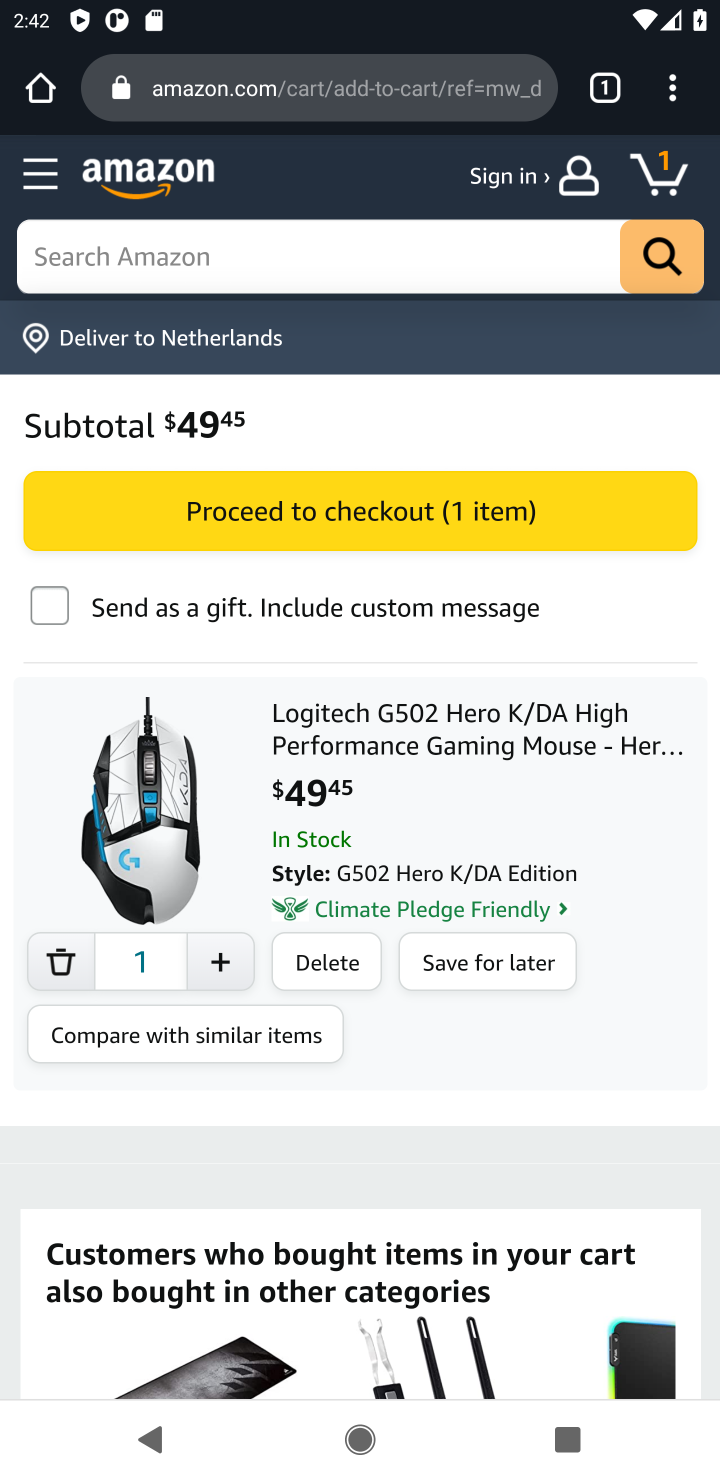
Step 28: click (340, 515)
Your task to perform on an android device: Clear the shopping cart on amazon. Add logitech g502 to the cart on amazon, then select checkout. Image 29: 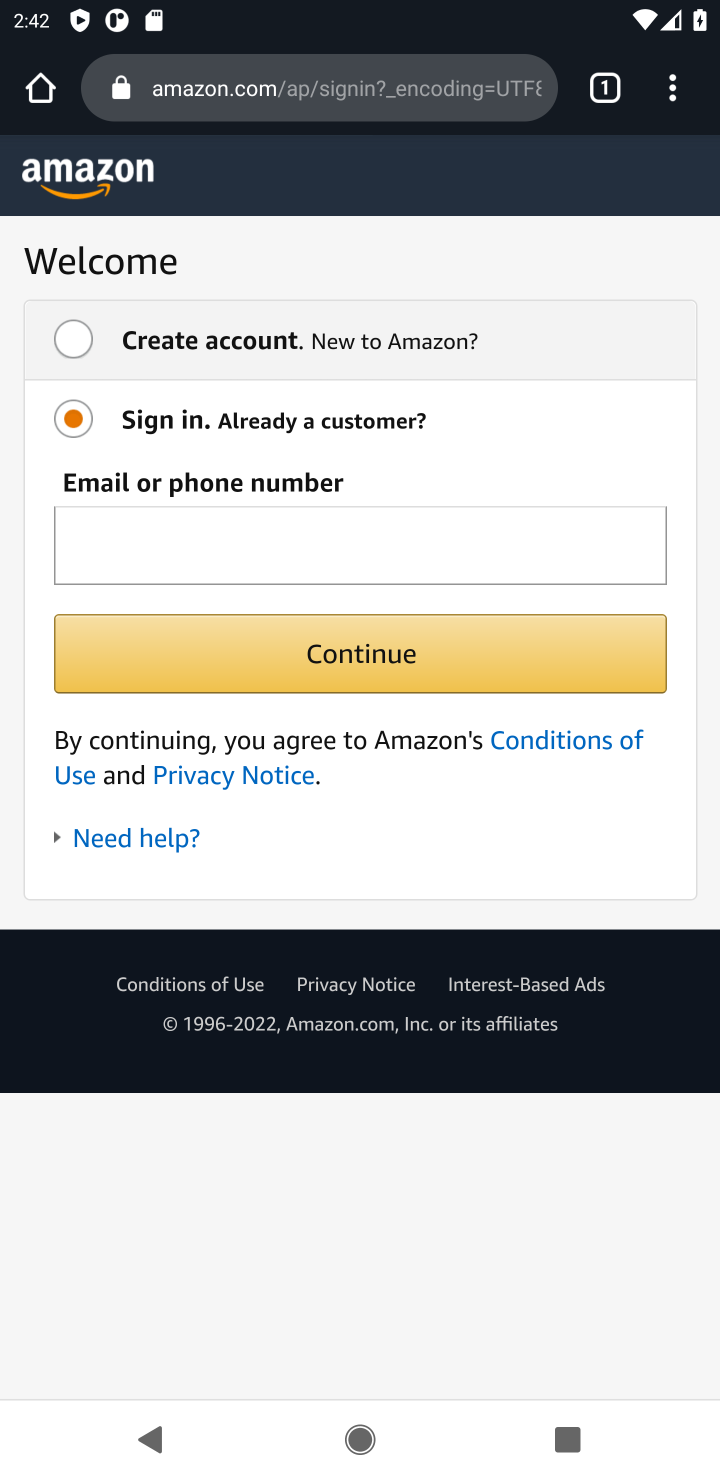
Step 29: task complete